Your task to perform on an android device: turn off smart reply in the gmail app Image 0: 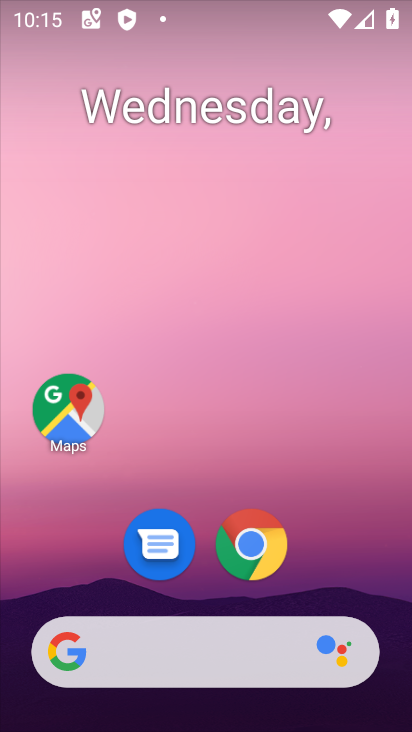
Step 0: drag from (315, 551) to (310, 36)
Your task to perform on an android device: turn off smart reply in the gmail app Image 1: 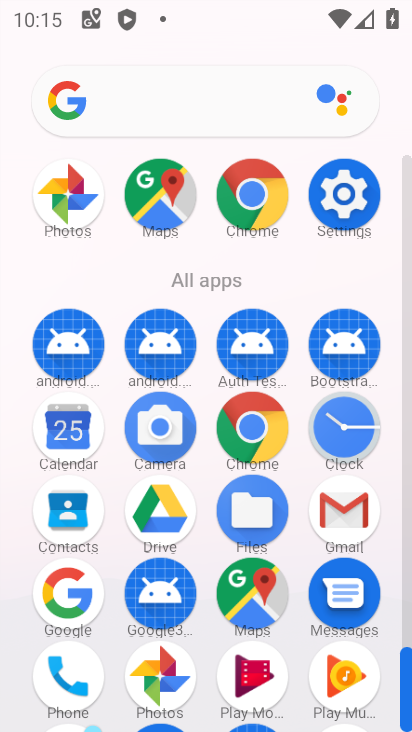
Step 1: click (351, 514)
Your task to perform on an android device: turn off smart reply in the gmail app Image 2: 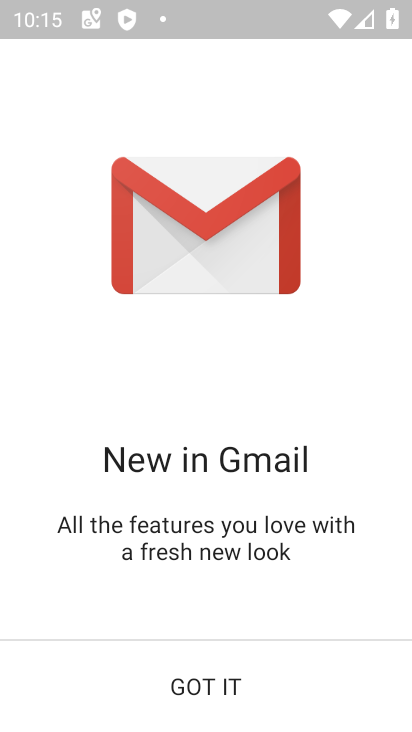
Step 2: click (170, 690)
Your task to perform on an android device: turn off smart reply in the gmail app Image 3: 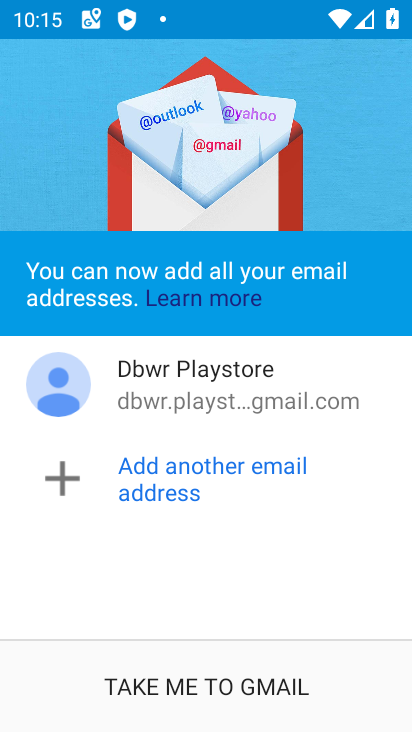
Step 3: click (156, 688)
Your task to perform on an android device: turn off smart reply in the gmail app Image 4: 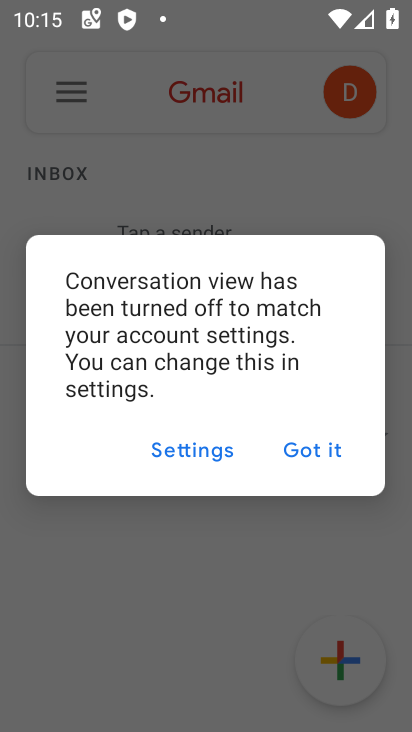
Step 4: click (309, 455)
Your task to perform on an android device: turn off smart reply in the gmail app Image 5: 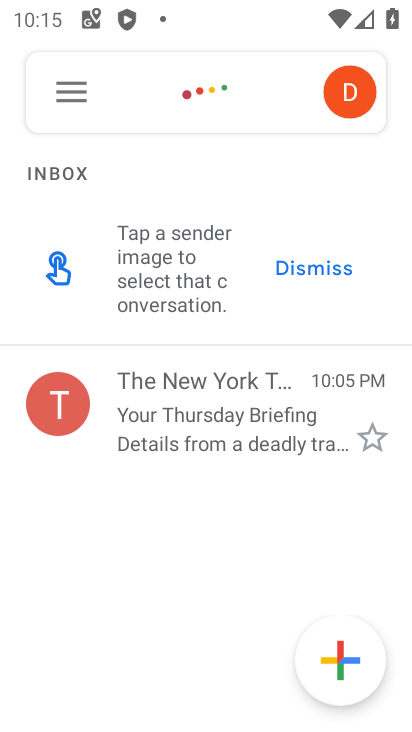
Step 5: click (70, 101)
Your task to perform on an android device: turn off smart reply in the gmail app Image 6: 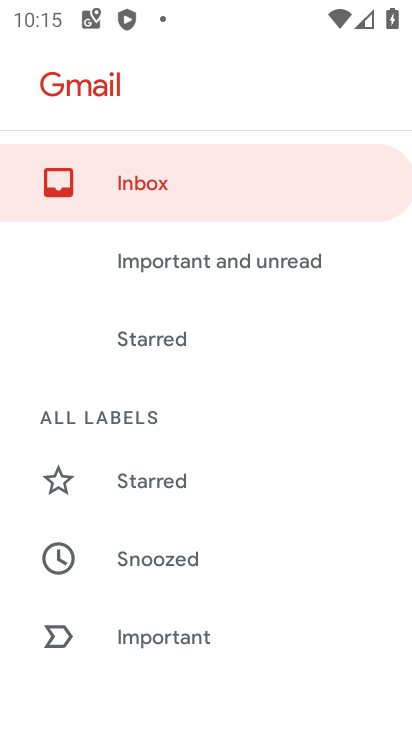
Step 6: drag from (166, 536) to (207, 43)
Your task to perform on an android device: turn off smart reply in the gmail app Image 7: 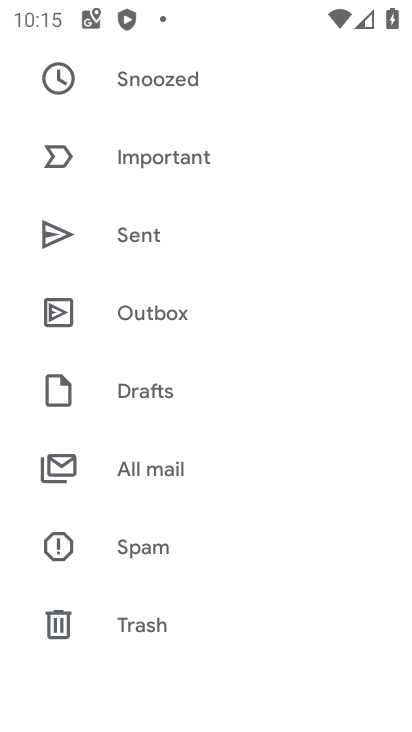
Step 7: drag from (149, 516) to (188, 100)
Your task to perform on an android device: turn off smart reply in the gmail app Image 8: 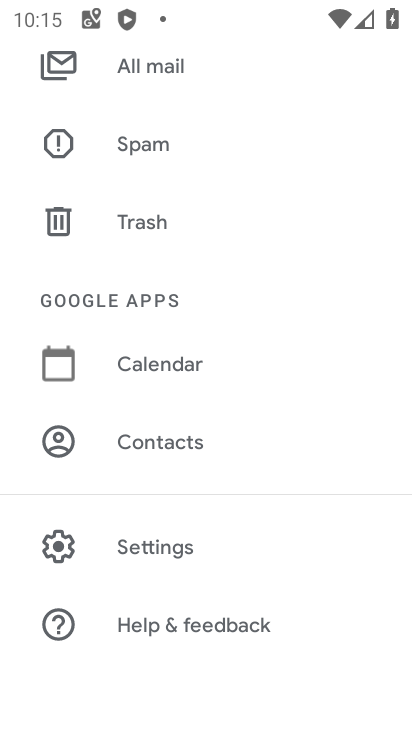
Step 8: click (129, 547)
Your task to perform on an android device: turn off smart reply in the gmail app Image 9: 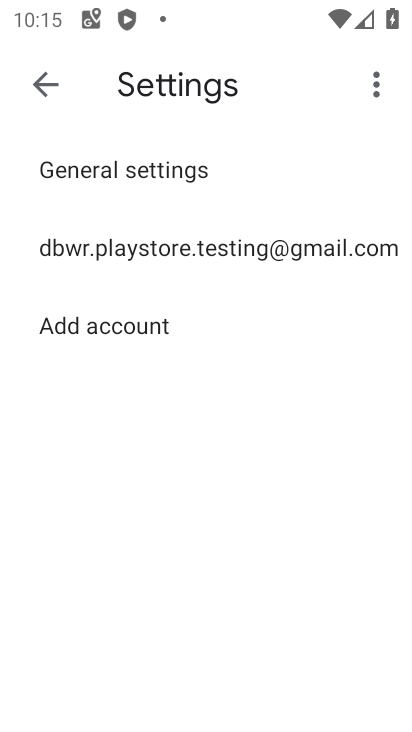
Step 9: click (108, 262)
Your task to perform on an android device: turn off smart reply in the gmail app Image 10: 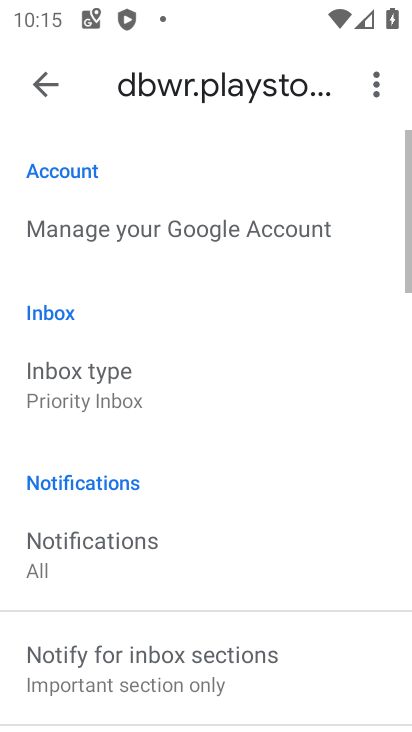
Step 10: drag from (178, 632) to (277, 47)
Your task to perform on an android device: turn off smart reply in the gmail app Image 11: 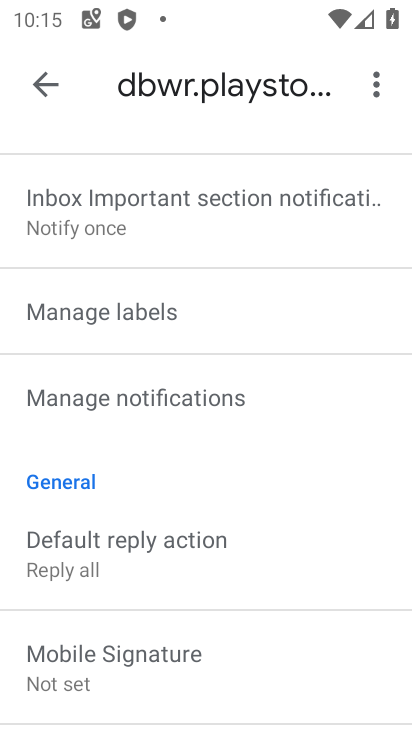
Step 11: drag from (152, 616) to (190, 101)
Your task to perform on an android device: turn off smart reply in the gmail app Image 12: 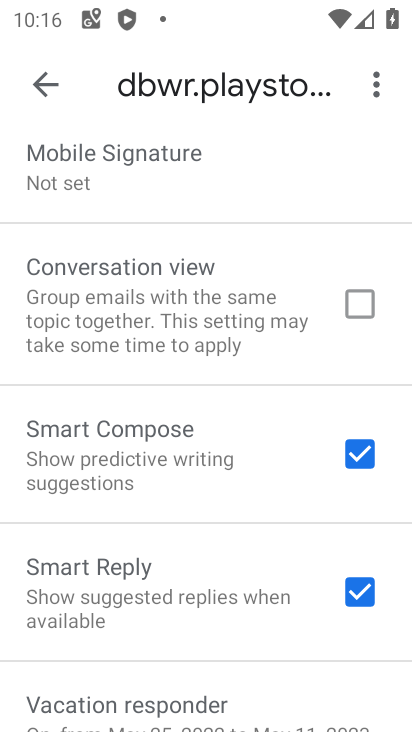
Step 12: click (321, 601)
Your task to perform on an android device: turn off smart reply in the gmail app Image 13: 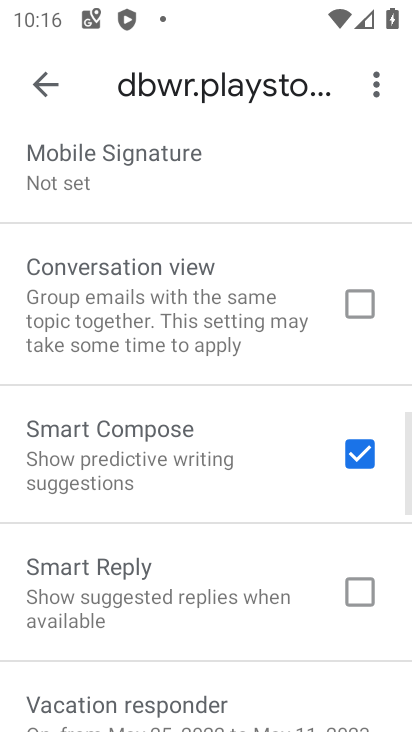
Step 13: task complete